Your task to perform on an android device: turn off sleep mode Image 0: 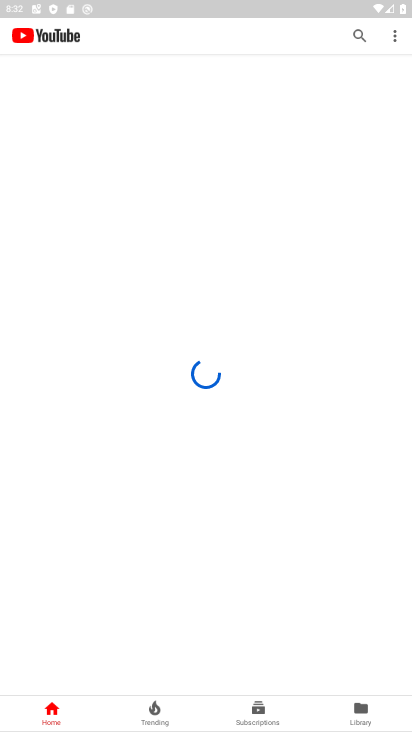
Step 0: drag from (180, 565) to (226, 124)
Your task to perform on an android device: turn off sleep mode Image 1: 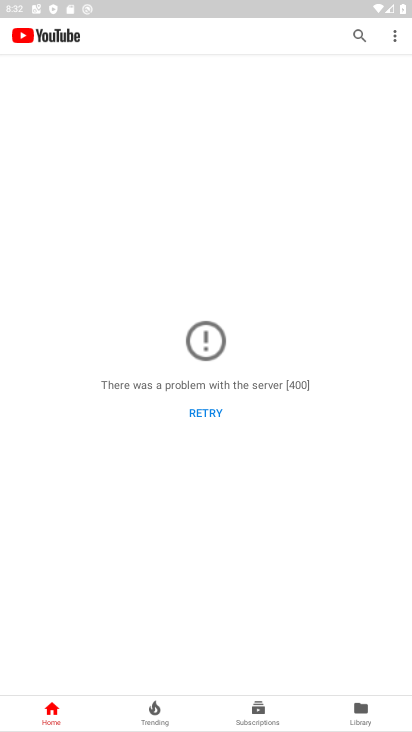
Step 1: click (212, 508)
Your task to perform on an android device: turn off sleep mode Image 2: 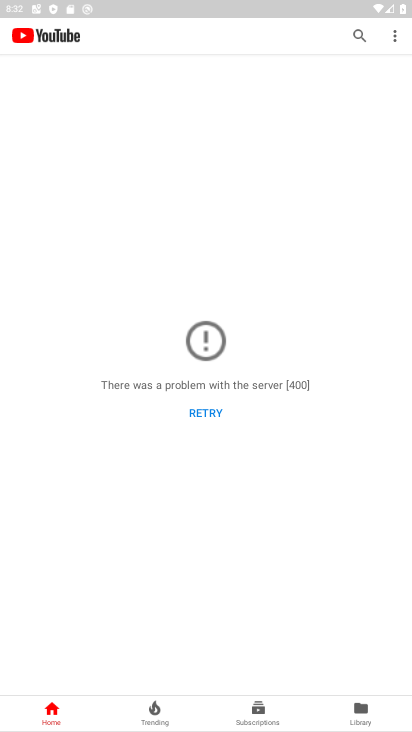
Step 2: press home button
Your task to perform on an android device: turn off sleep mode Image 3: 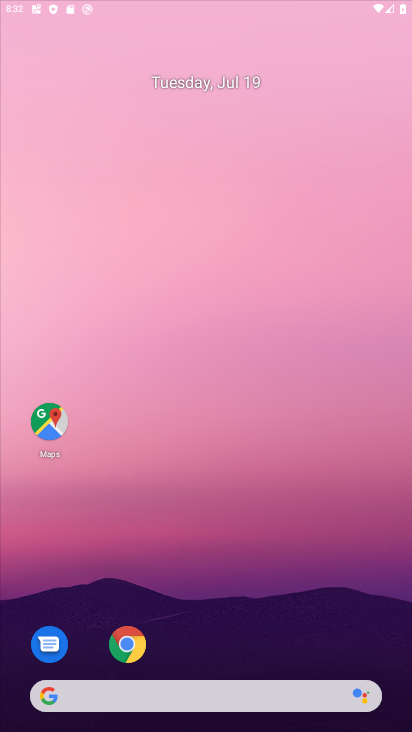
Step 3: drag from (222, 524) to (289, 207)
Your task to perform on an android device: turn off sleep mode Image 4: 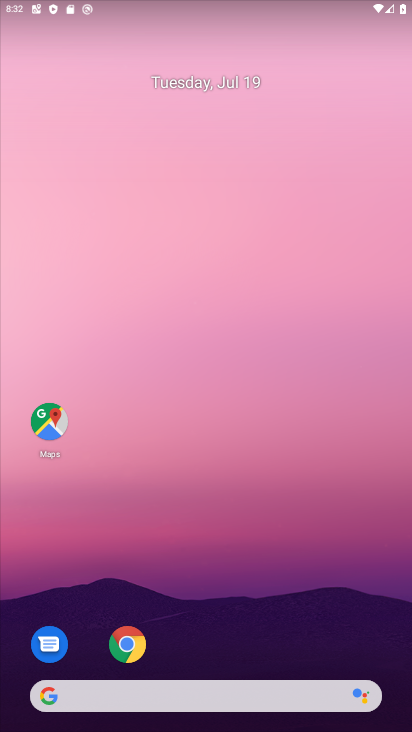
Step 4: click (230, 104)
Your task to perform on an android device: turn off sleep mode Image 5: 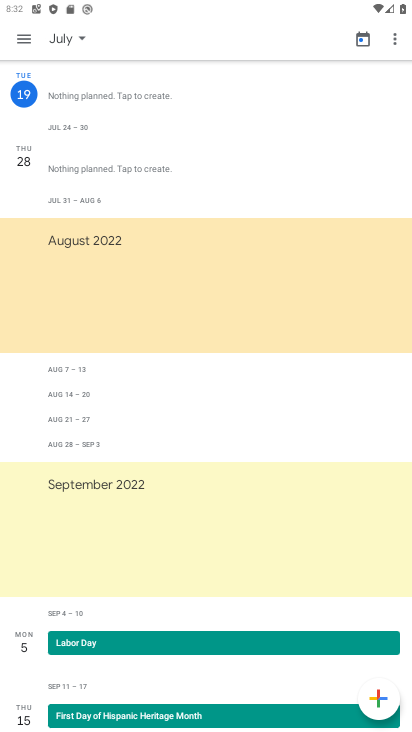
Step 5: drag from (194, 613) to (231, 276)
Your task to perform on an android device: turn off sleep mode Image 6: 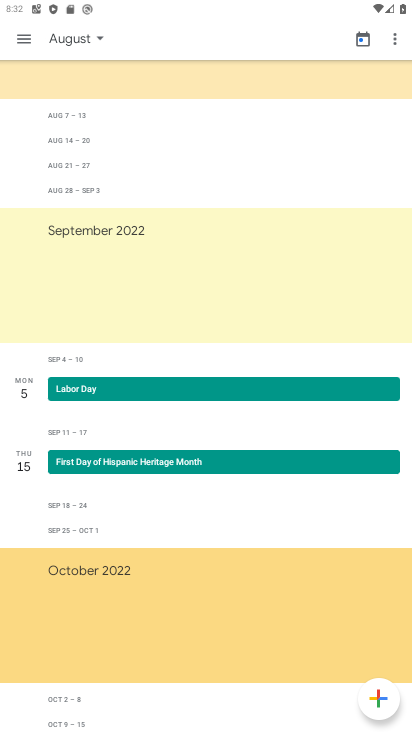
Step 6: press home button
Your task to perform on an android device: turn off sleep mode Image 7: 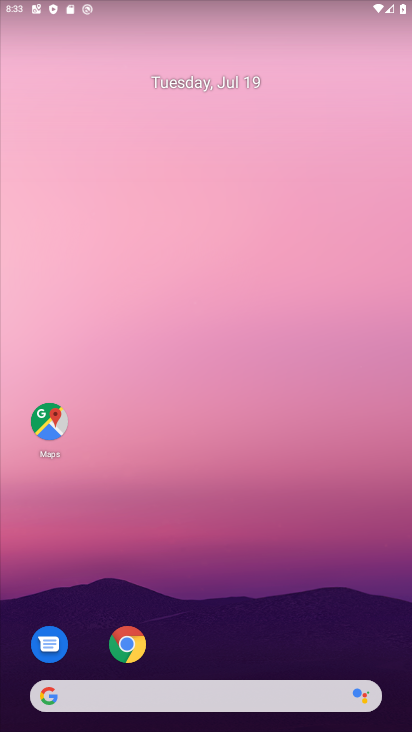
Step 7: drag from (237, 589) to (339, 18)
Your task to perform on an android device: turn off sleep mode Image 8: 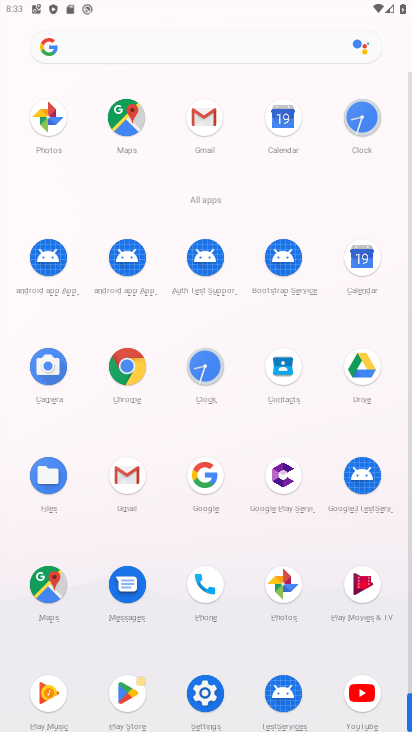
Step 8: click (186, 694)
Your task to perform on an android device: turn off sleep mode Image 9: 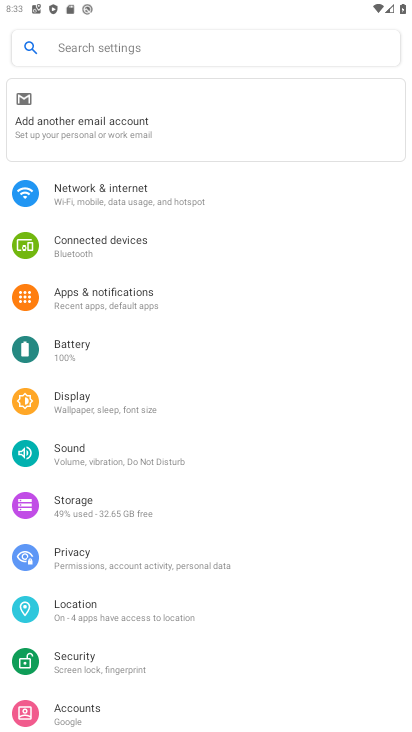
Step 9: click (84, 345)
Your task to perform on an android device: turn off sleep mode Image 10: 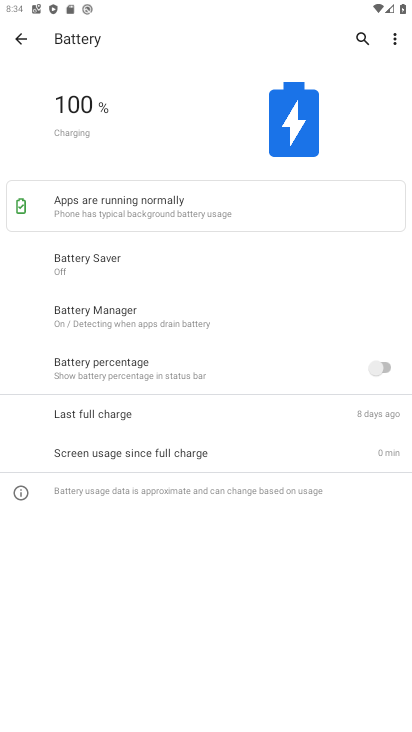
Step 10: click (12, 52)
Your task to perform on an android device: turn off sleep mode Image 11: 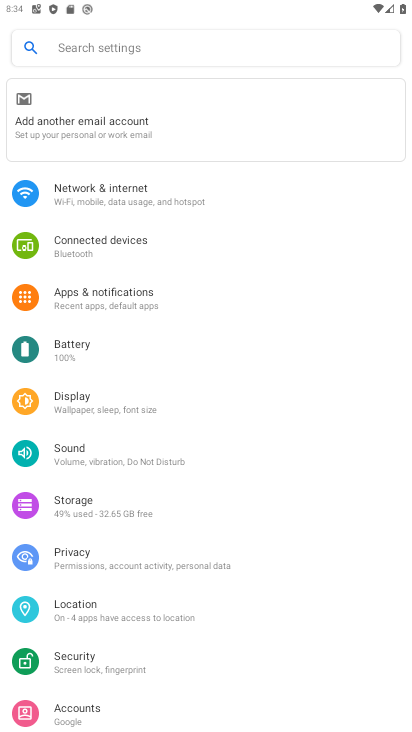
Step 11: click (81, 403)
Your task to perform on an android device: turn off sleep mode Image 12: 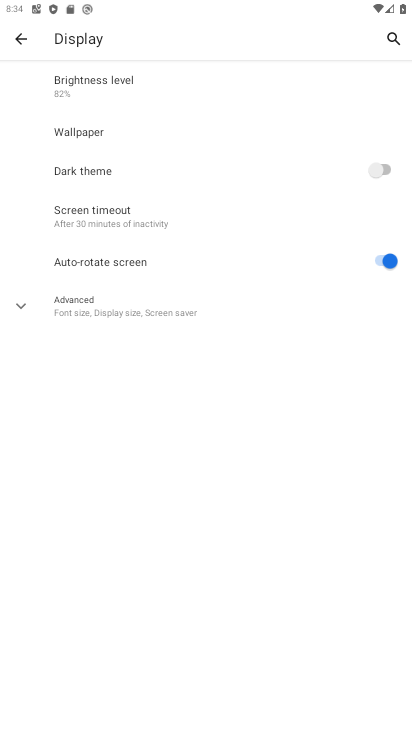
Step 12: click (92, 217)
Your task to perform on an android device: turn off sleep mode Image 13: 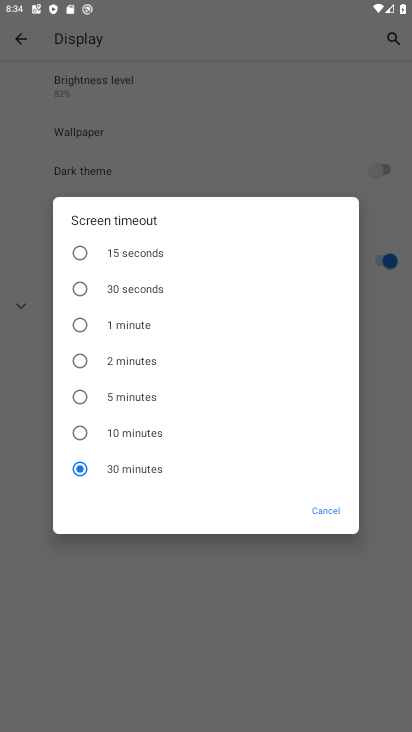
Step 13: task complete